Your task to perform on an android device: check battery use Image 0: 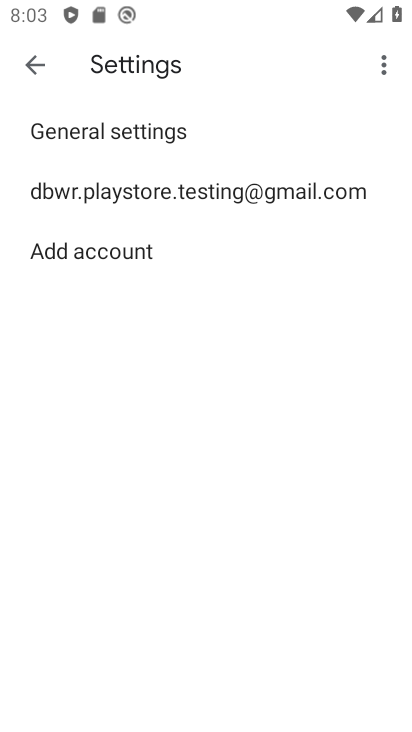
Step 0: press home button
Your task to perform on an android device: check battery use Image 1: 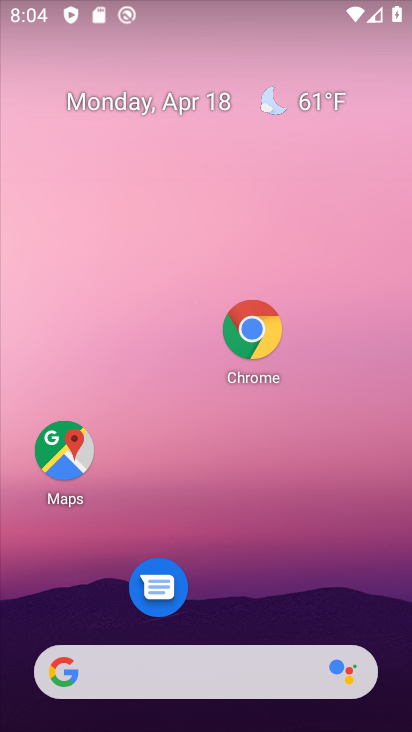
Step 1: drag from (226, 627) to (255, 271)
Your task to perform on an android device: check battery use Image 2: 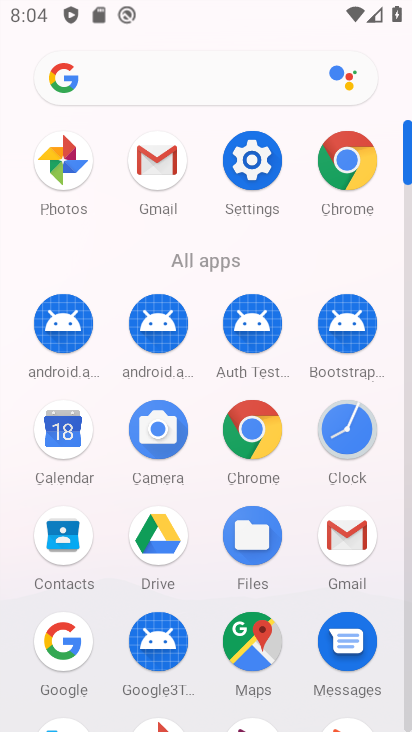
Step 2: click (252, 162)
Your task to perform on an android device: check battery use Image 3: 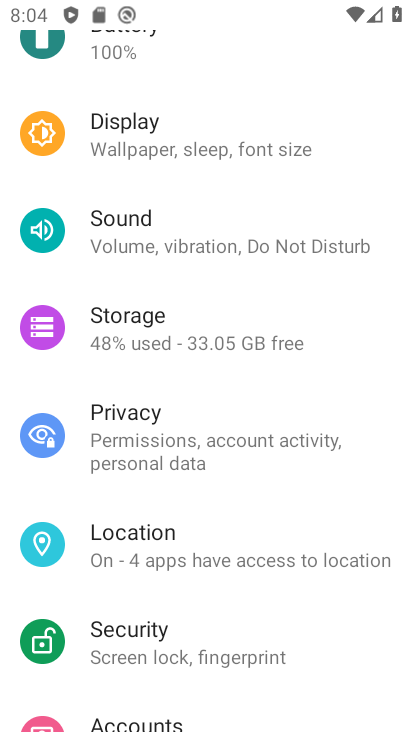
Step 3: drag from (152, 110) to (147, 537)
Your task to perform on an android device: check battery use Image 4: 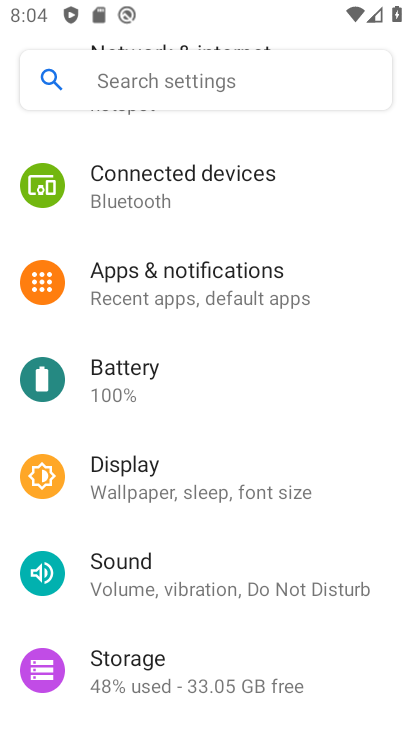
Step 4: click (171, 382)
Your task to perform on an android device: check battery use Image 5: 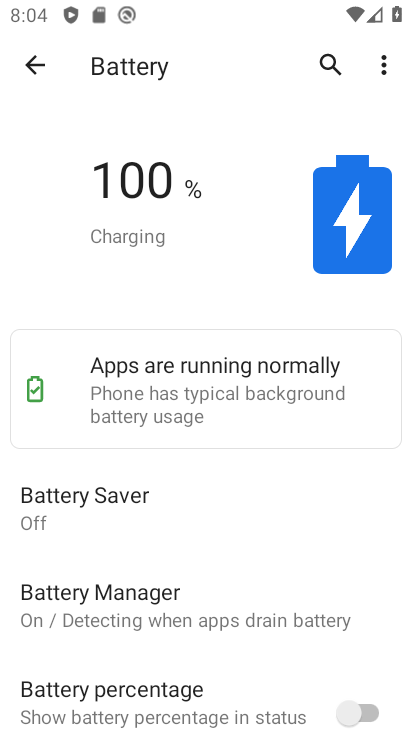
Step 5: task complete